Your task to perform on an android device: install app "Adobe Express: Graphic Design" Image 0: 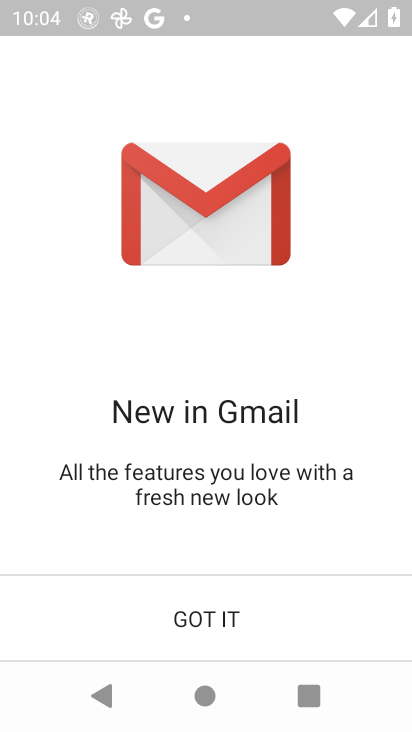
Step 0: press back button
Your task to perform on an android device: install app "Adobe Express: Graphic Design" Image 1: 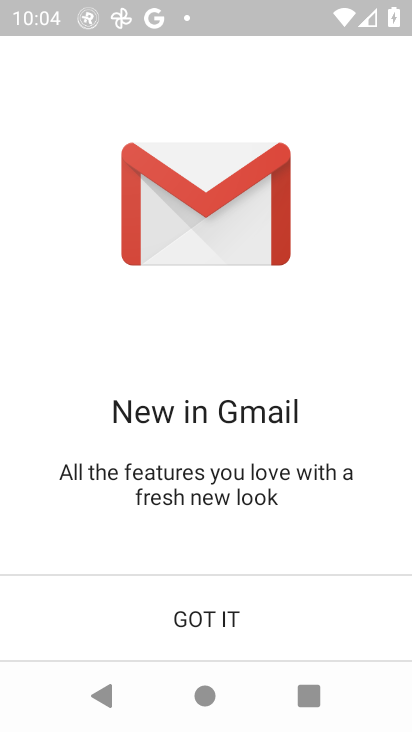
Step 1: press back button
Your task to perform on an android device: install app "Adobe Express: Graphic Design" Image 2: 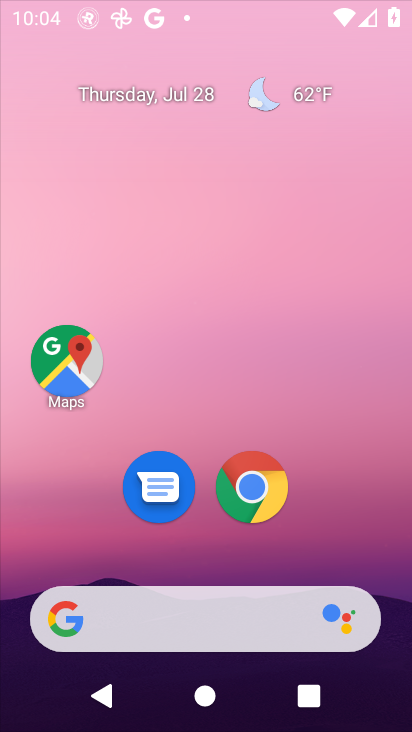
Step 2: press back button
Your task to perform on an android device: install app "Adobe Express: Graphic Design" Image 3: 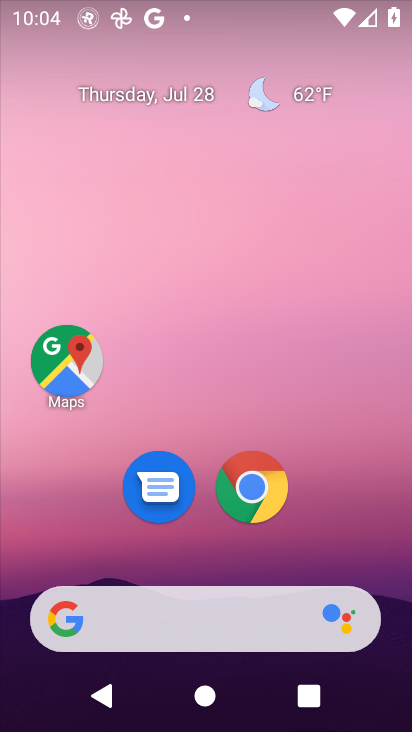
Step 3: drag from (228, 640) to (172, 323)
Your task to perform on an android device: install app "Adobe Express: Graphic Design" Image 4: 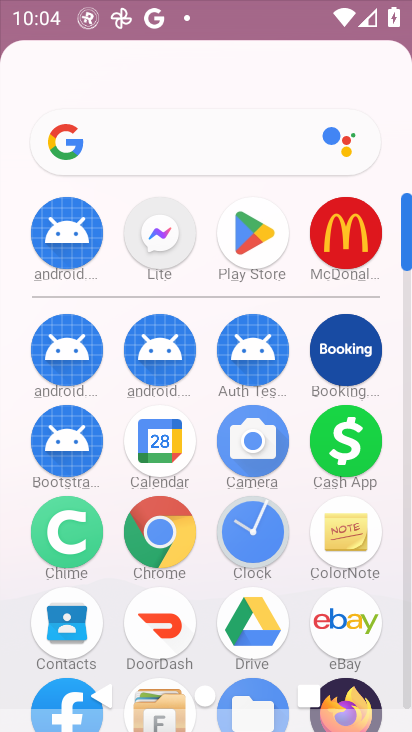
Step 4: drag from (245, 615) to (202, 269)
Your task to perform on an android device: install app "Adobe Express: Graphic Design" Image 5: 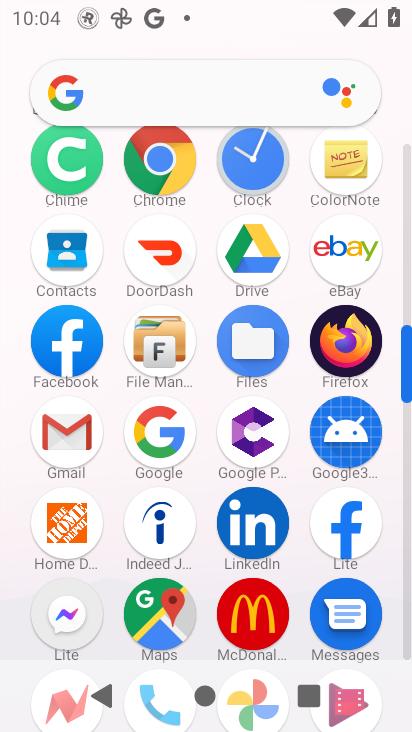
Step 5: drag from (218, 277) to (225, 525)
Your task to perform on an android device: install app "Adobe Express: Graphic Design" Image 6: 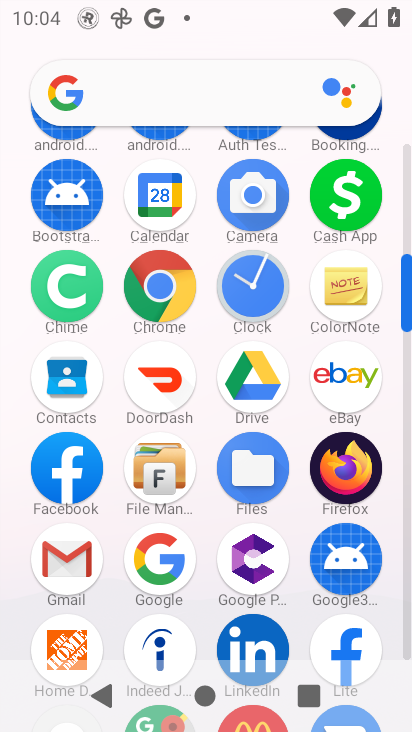
Step 6: drag from (192, 268) to (192, 492)
Your task to perform on an android device: install app "Adobe Express: Graphic Design" Image 7: 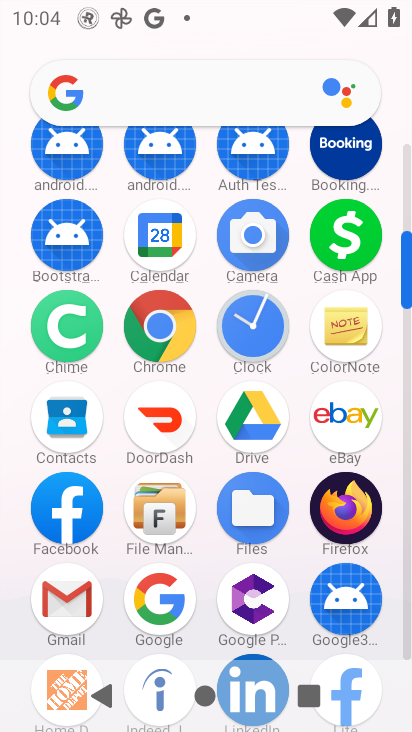
Step 7: drag from (252, 422) to (260, 589)
Your task to perform on an android device: install app "Adobe Express: Graphic Design" Image 8: 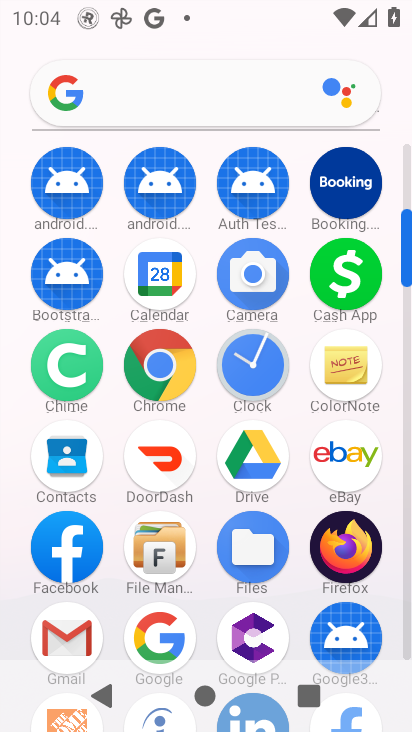
Step 8: drag from (257, 281) to (257, 566)
Your task to perform on an android device: install app "Adobe Express: Graphic Design" Image 9: 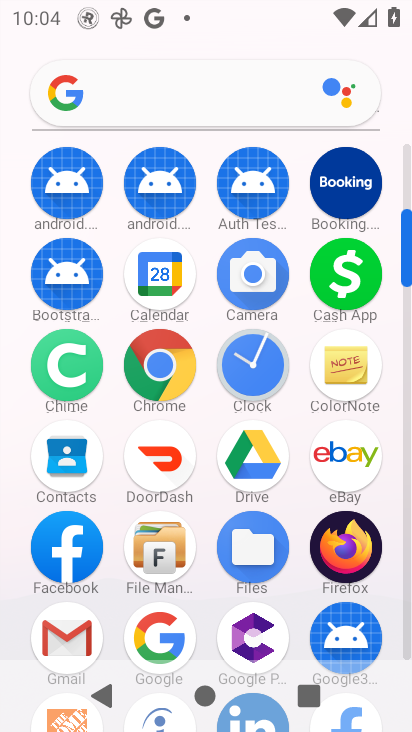
Step 9: drag from (184, 298) to (194, 492)
Your task to perform on an android device: install app "Adobe Express: Graphic Design" Image 10: 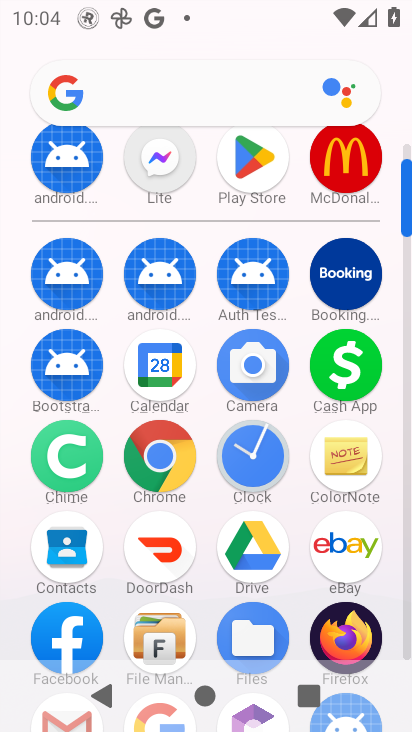
Step 10: drag from (295, 349) to (304, 544)
Your task to perform on an android device: install app "Adobe Express: Graphic Design" Image 11: 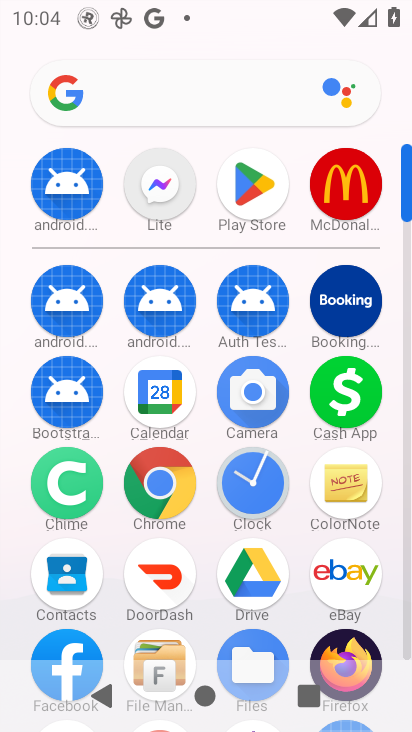
Step 11: click (291, 568)
Your task to perform on an android device: install app "Adobe Express: Graphic Design" Image 12: 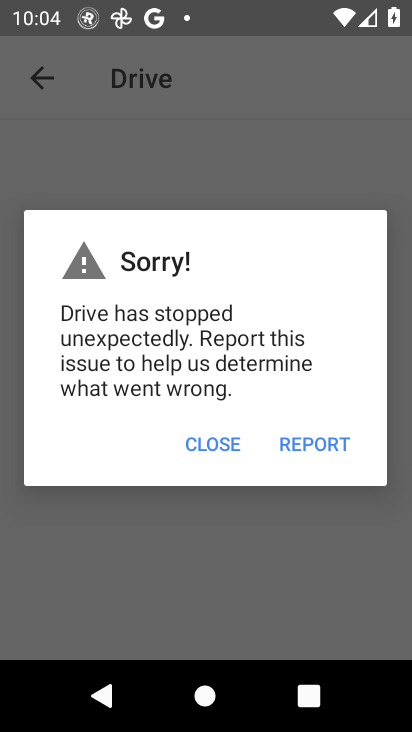
Step 12: click (252, 183)
Your task to perform on an android device: install app "Adobe Express: Graphic Design" Image 13: 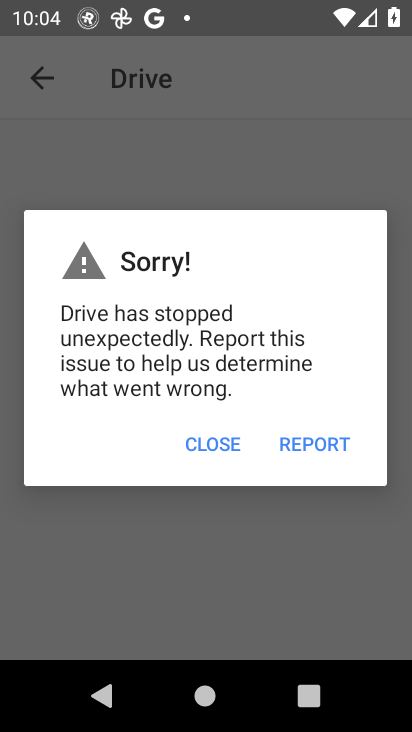
Step 13: click (204, 440)
Your task to perform on an android device: install app "Adobe Express: Graphic Design" Image 14: 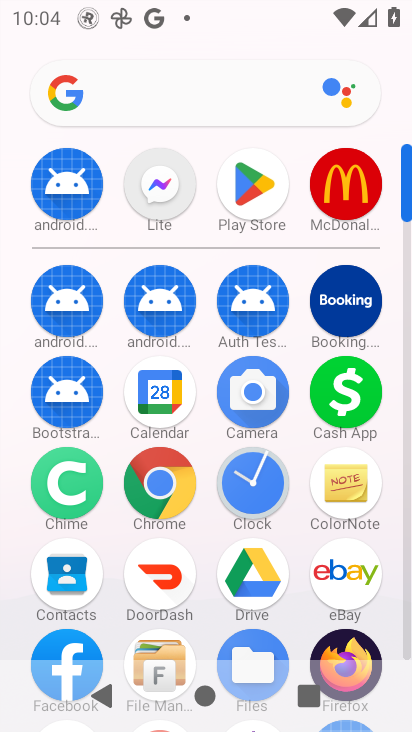
Step 14: click (242, 190)
Your task to perform on an android device: install app "Adobe Express: Graphic Design" Image 15: 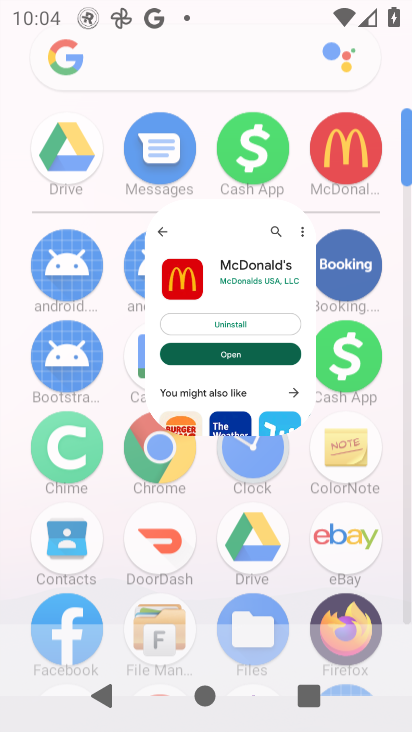
Step 15: click (241, 189)
Your task to perform on an android device: install app "Adobe Express: Graphic Design" Image 16: 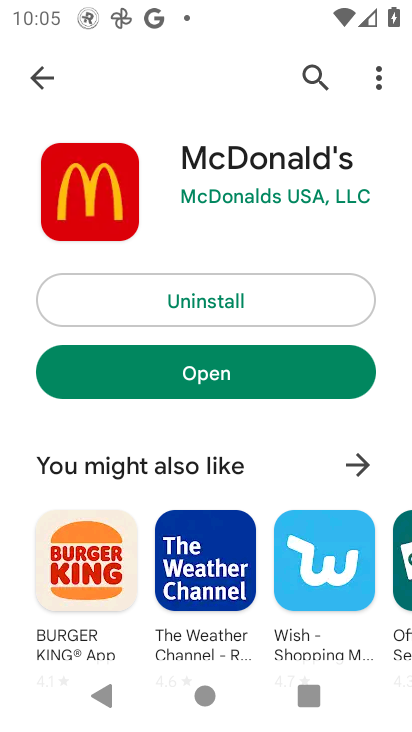
Step 16: click (33, 57)
Your task to perform on an android device: install app "Adobe Express: Graphic Design" Image 17: 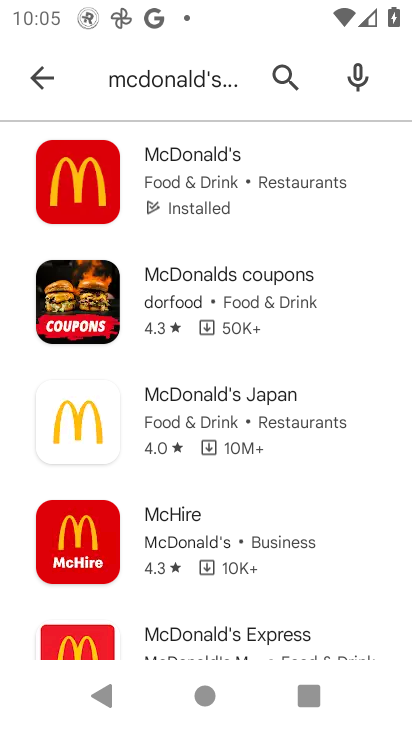
Step 17: click (11, 78)
Your task to perform on an android device: install app "Adobe Express: Graphic Design" Image 18: 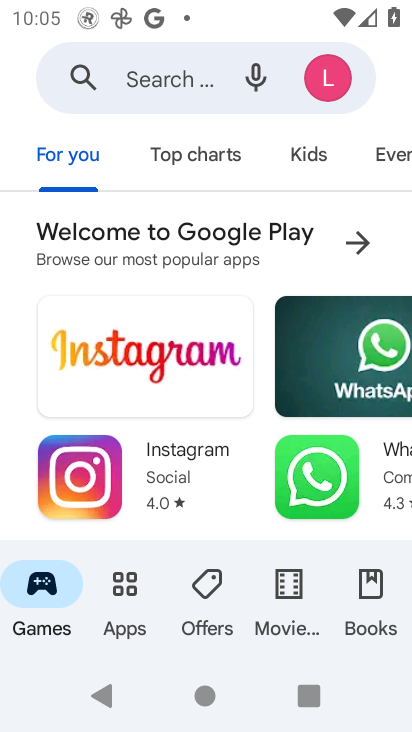
Step 18: click (125, 81)
Your task to perform on an android device: install app "Adobe Express: Graphic Design" Image 19: 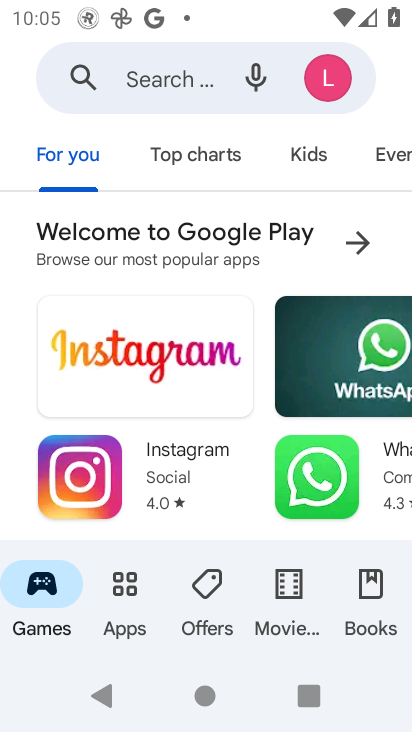
Step 19: click (125, 81)
Your task to perform on an android device: install app "Adobe Express: Graphic Design" Image 20: 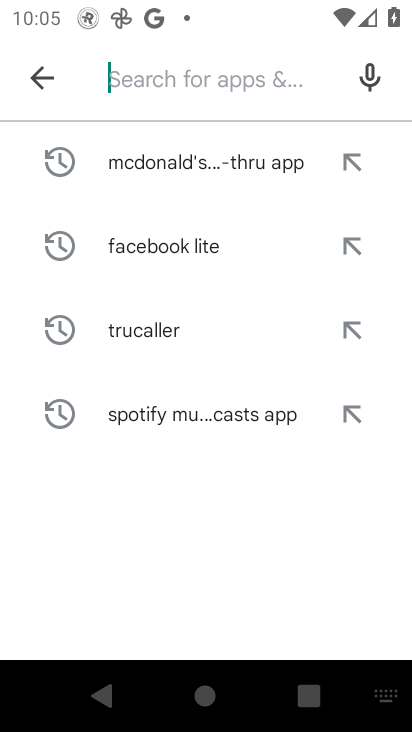
Step 20: type "adobe express: graphic design"
Your task to perform on an android device: install app "Adobe Express: Graphic Design" Image 21: 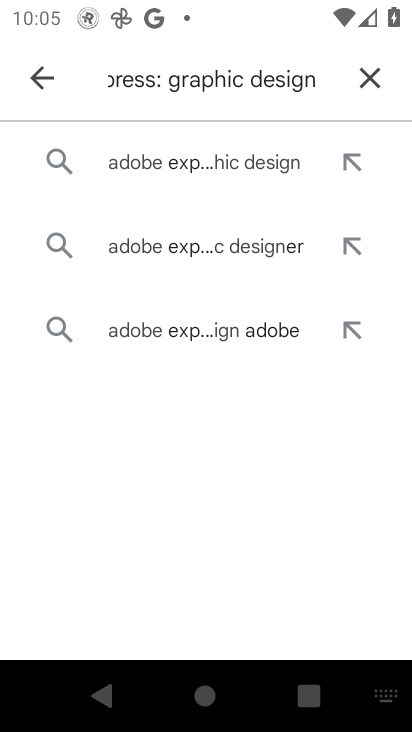
Step 21: click (244, 163)
Your task to perform on an android device: install app "Adobe Express: Graphic Design" Image 22: 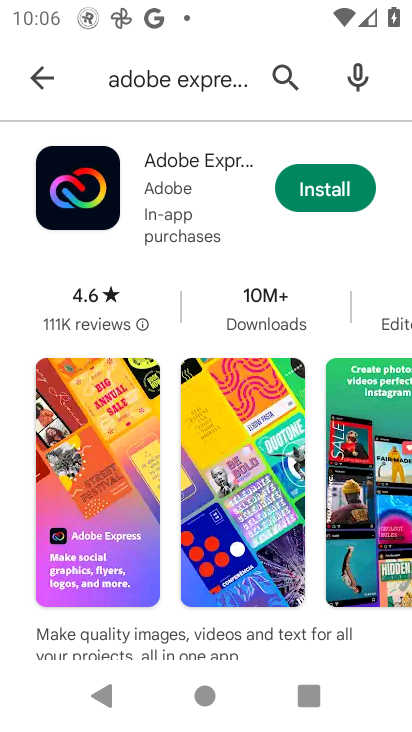
Step 22: click (294, 178)
Your task to perform on an android device: install app "Adobe Express: Graphic Design" Image 23: 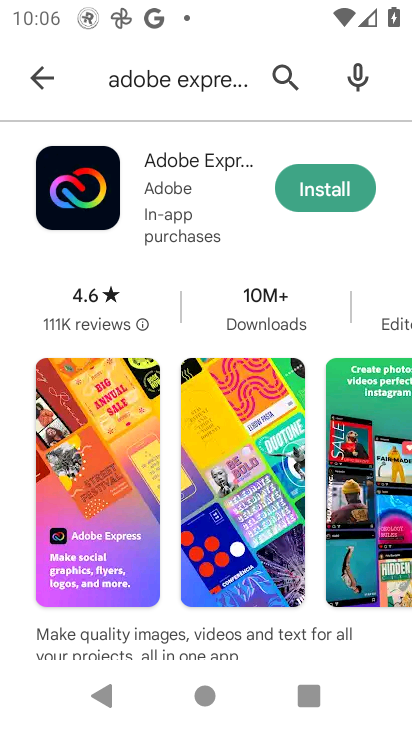
Step 23: click (294, 178)
Your task to perform on an android device: install app "Adobe Express: Graphic Design" Image 24: 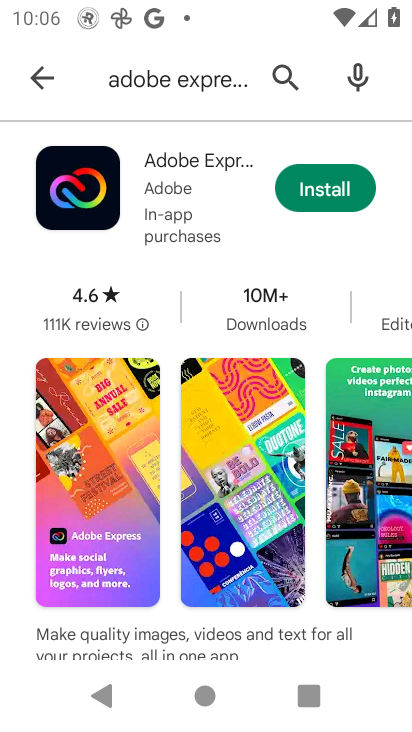
Step 24: click (331, 195)
Your task to perform on an android device: install app "Adobe Express: Graphic Design" Image 25: 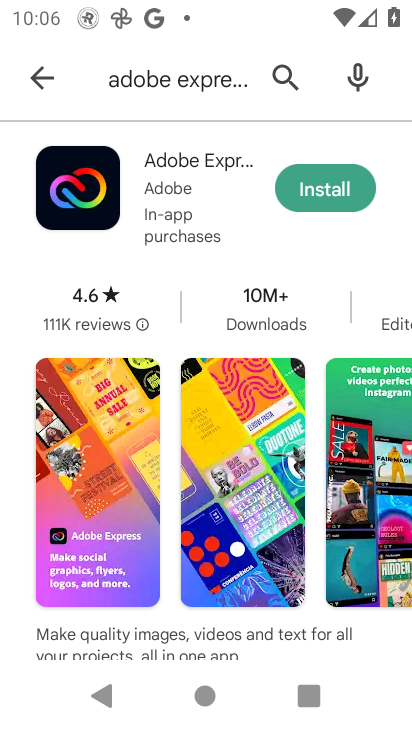
Step 25: click (332, 195)
Your task to perform on an android device: install app "Adobe Express: Graphic Design" Image 26: 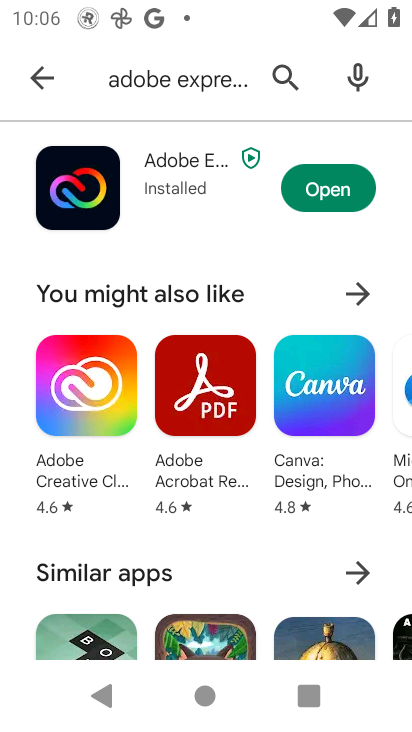
Step 26: click (321, 183)
Your task to perform on an android device: install app "Adobe Express: Graphic Design" Image 27: 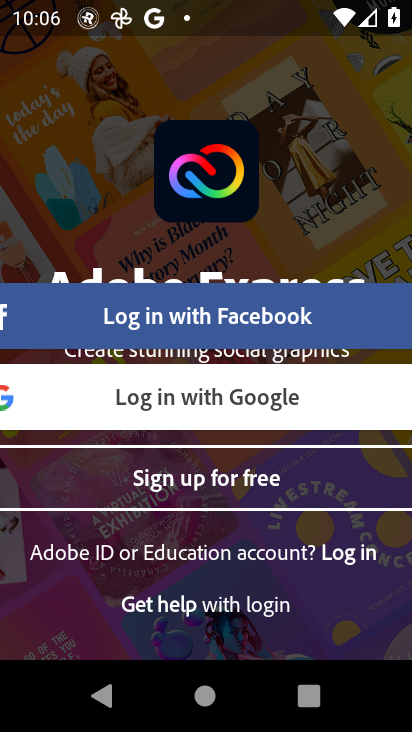
Step 27: task complete